Your task to perform on an android device: open wifi settings Image 0: 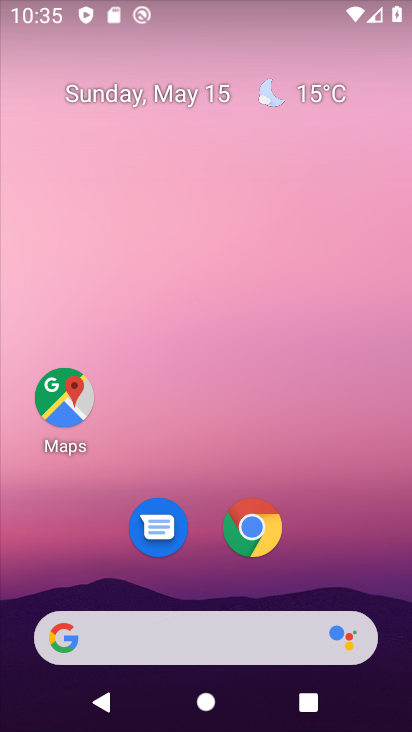
Step 0: drag from (346, 527) to (230, 122)
Your task to perform on an android device: open wifi settings Image 1: 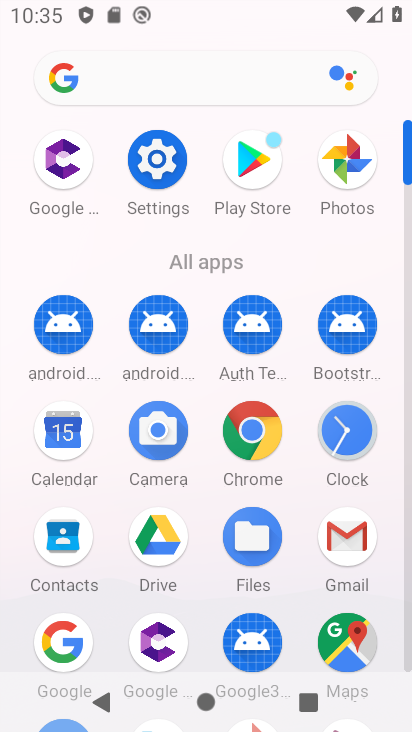
Step 1: click (160, 159)
Your task to perform on an android device: open wifi settings Image 2: 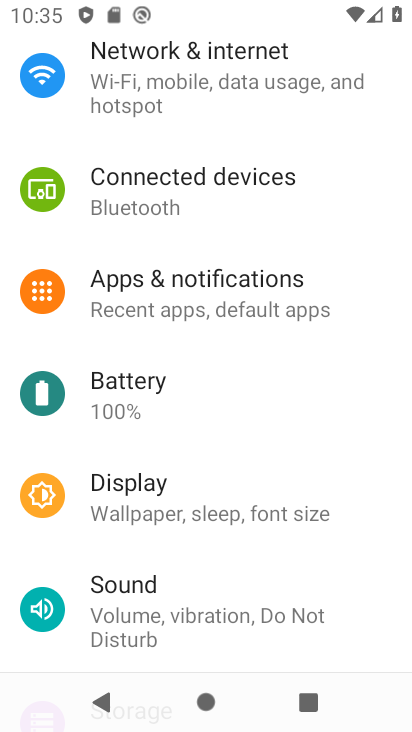
Step 2: drag from (231, 220) to (203, 379)
Your task to perform on an android device: open wifi settings Image 3: 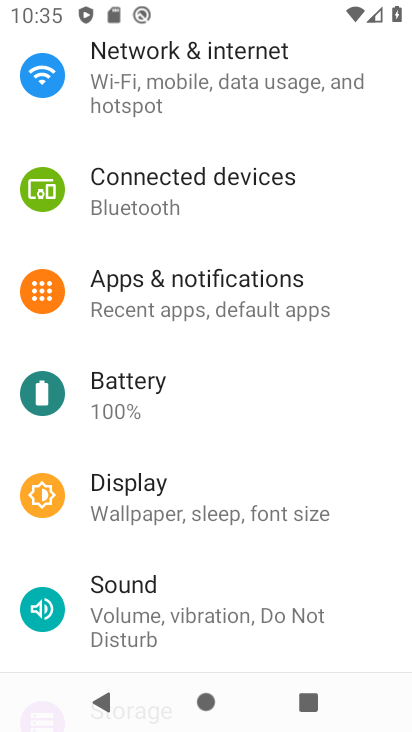
Step 3: click (145, 56)
Your task to perform on an android device: open wifi settings Image 4: 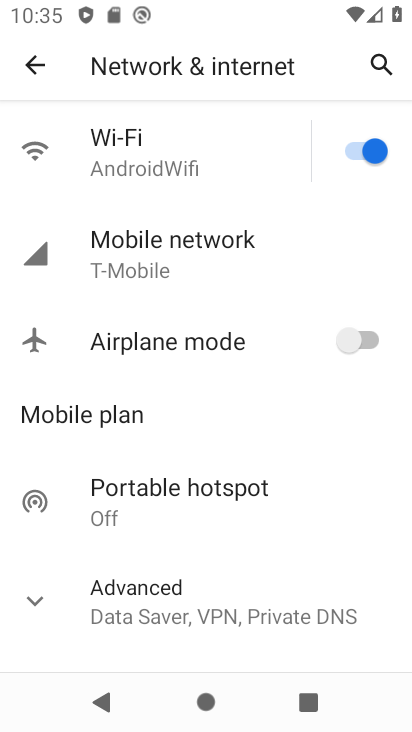
Step 4: click (153, 168)
Your task to perform on an android device: open wifi settings Image 5: 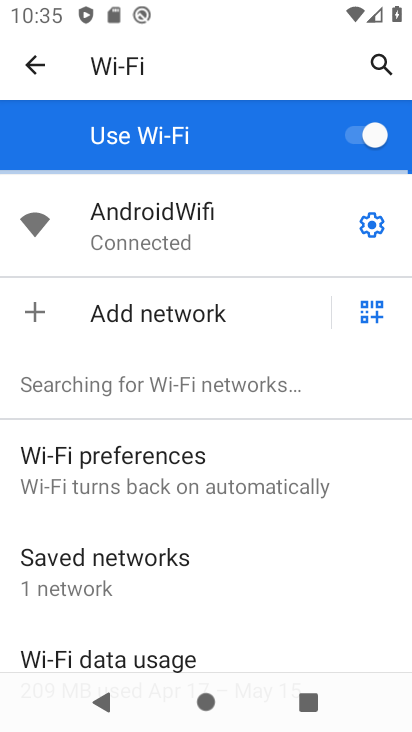
Step 5: click (370, 228)
Your task to perform on an android device: open wifi settings Image 6: 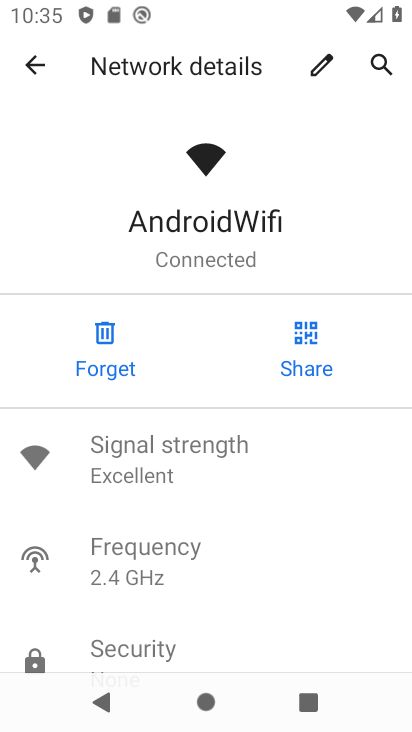
Step 6: task complete